Your task to perform on an android device: Open eBay Image 0: 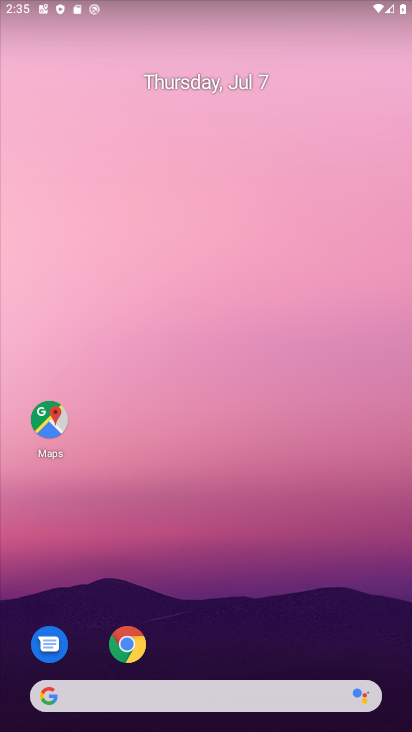
Step 0: press home button
Your task to perform on an android device: Open eBay Image 1: 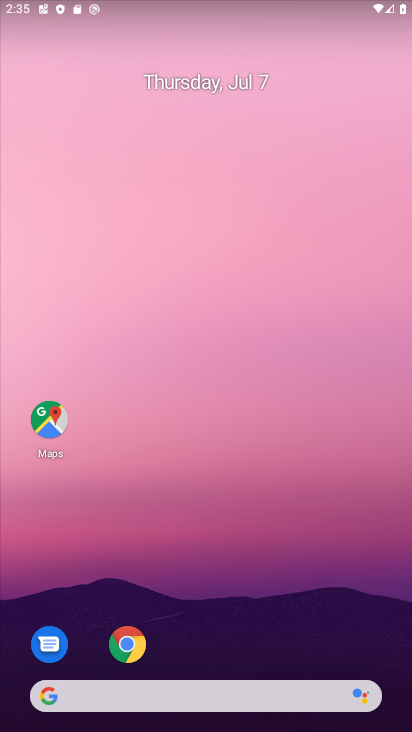
Step 1: click (34, 695)
Your task to perform on an android device: Open eBay Image 2: 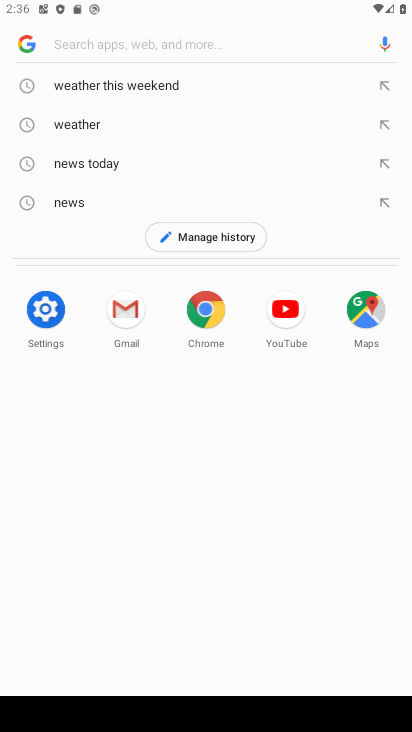
Step 2: type "ebay"
Your task to perform on an android device: Open eBay Image 3: 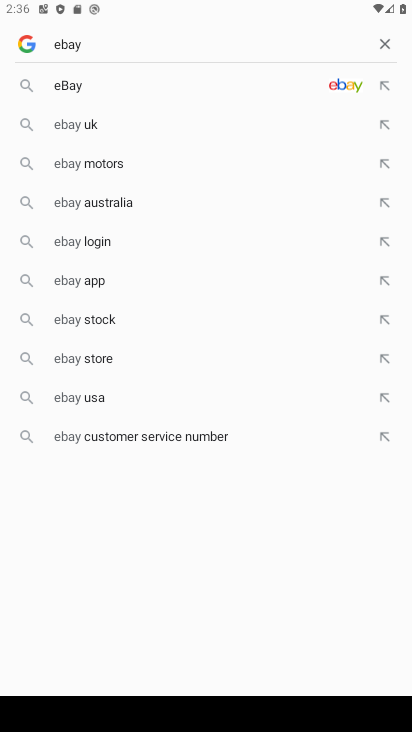
Step 3: click (58, 90)
Your task to perform on an android device: Open eBay Image 4: 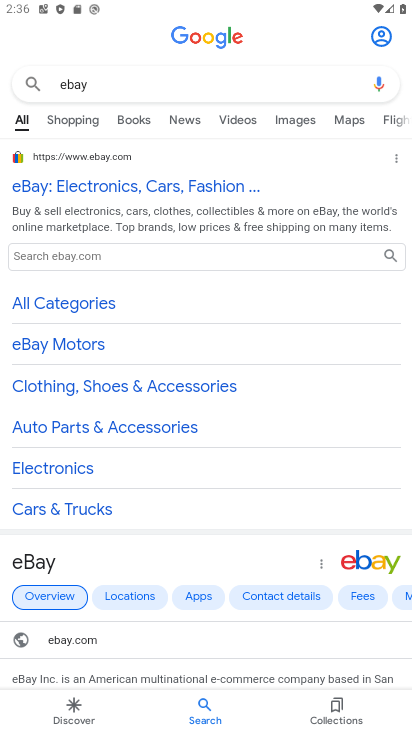
Step 4: click (119, 188)
Your task to perform on an android device: Open eBay Image 5: 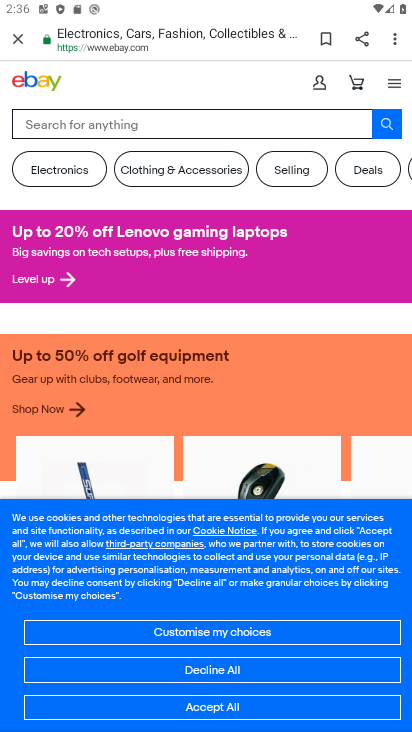
Step 5: task complete